Your task to perform on an android device: open a bookmark in the chrome app Image 0: 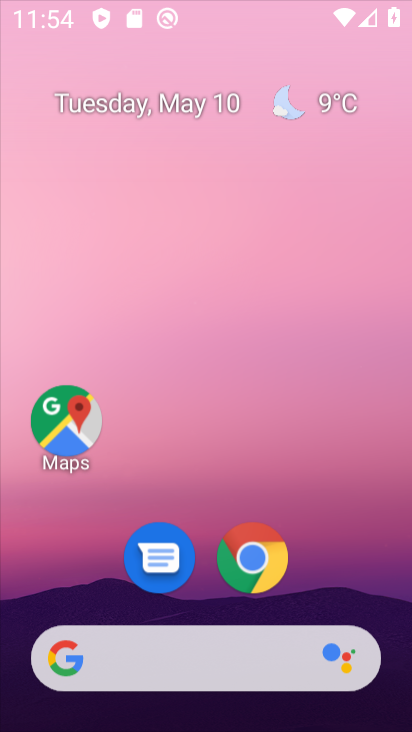
Step 0: press home button
Your task to perform on an android device: open a bookmark in the chrome app Image 1: 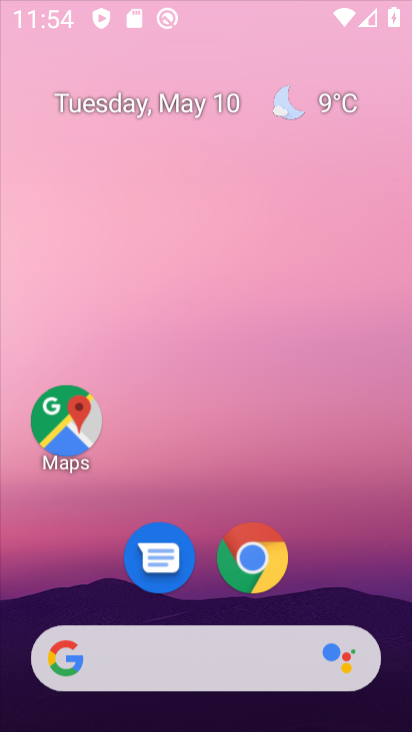
Step 1: click (357, 107)
Your task to perform on an android device: open a bookmark in the chrome app Image 2: 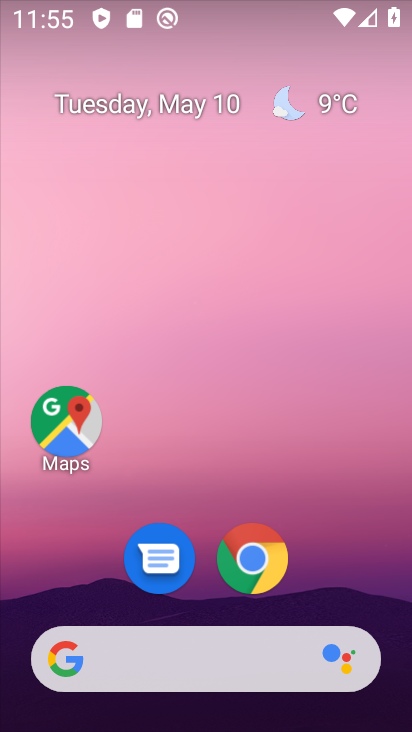
Step 2: click (347, 149)
Your task to perform on an android device: open a bookmark in the chrome app Image 3: 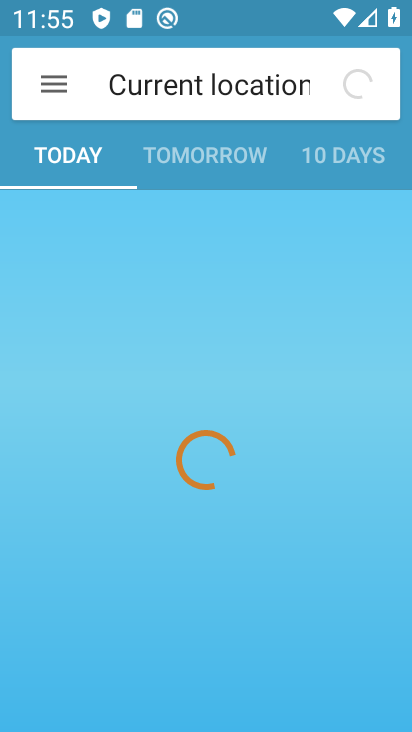
Step 3: drag from (345, 575) to (356, 464)
Your task to perform on an android device: open a bookmark in the chrome app Image 4: 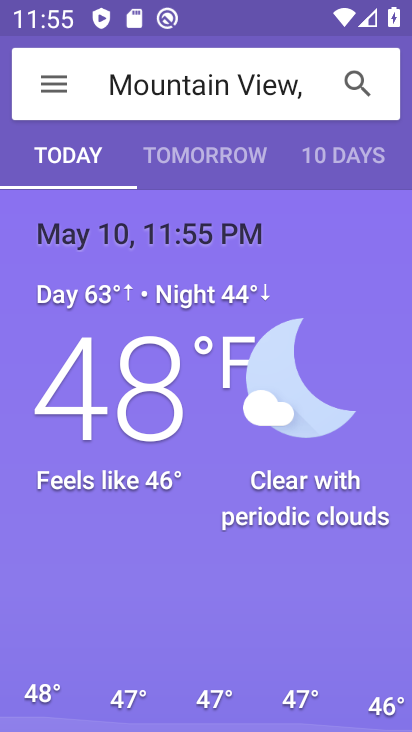
Step 4: press home button
Your task to perform on an android device: open a bookmark in the chrome app Image 5: 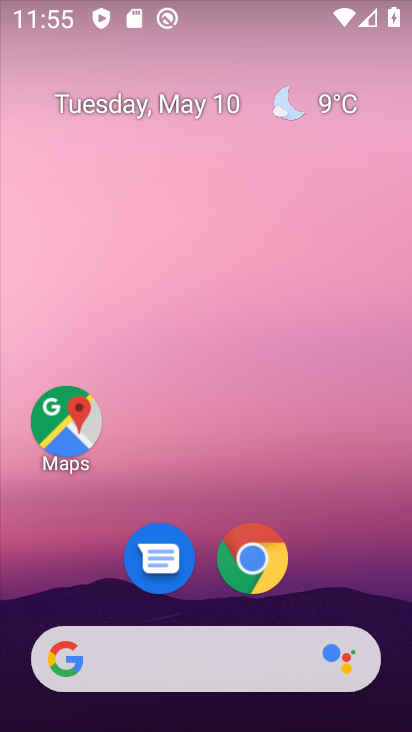
Step 5: drag from (344, 568) to (360, 99)
Your task to perform on an android device: open a bookmark in the chrome app Image 6: 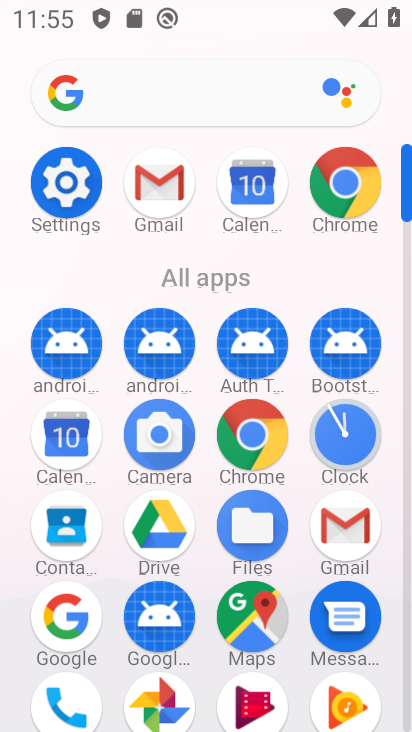
Step 6: click (246, 437)
Your task to perform on an android device: open a bookmark in the chrome app Image 7: 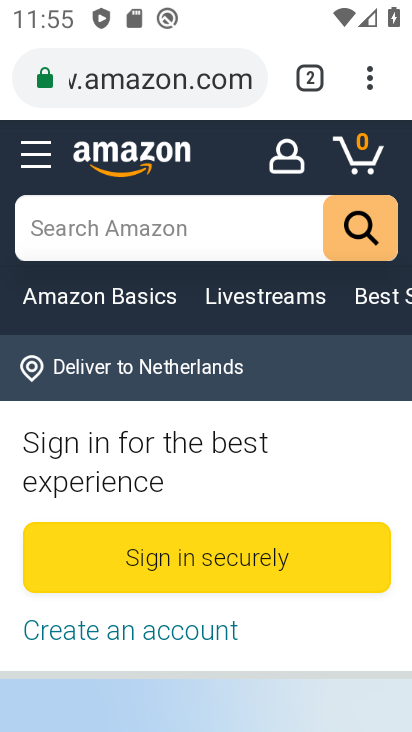
Step 7: task complete